Your task to perform on an android device: add a contact in the contacts app Image 0: 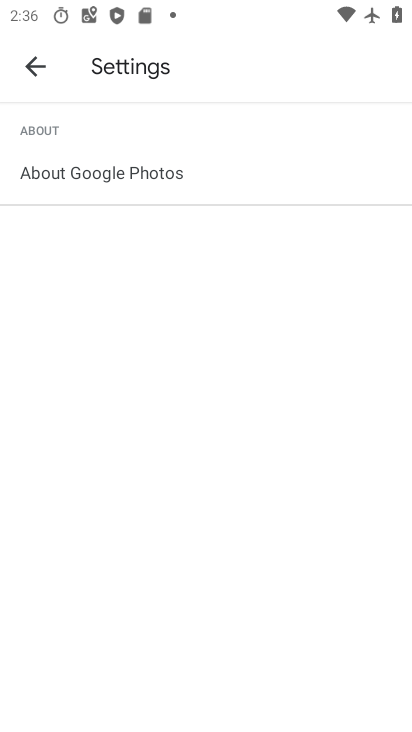
Step 0: drag from (191, 662) to (328, 222)
Your task to perform on an android device: add a contact in the contacts app Image 1: 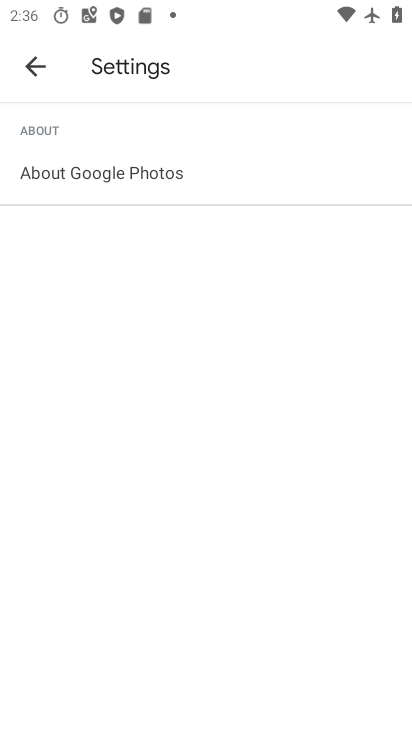
Step 1: press home button
Your task to perform on an android device: add a contact in the contacts app Image 2: 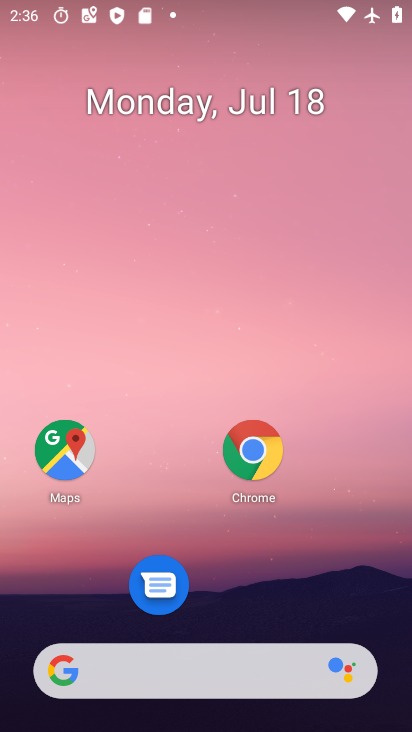
Step 2: drag from (174, 667) to (228, 234)
Your task to perform on an android device: add a contact in the contacts app Image 3: 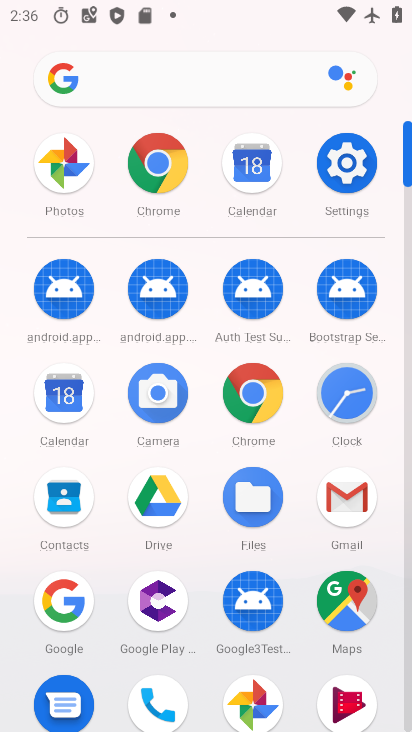
Step 3: click (70, 504)
Your task to perform on an android device: add a contact in the contacts app Image 4: 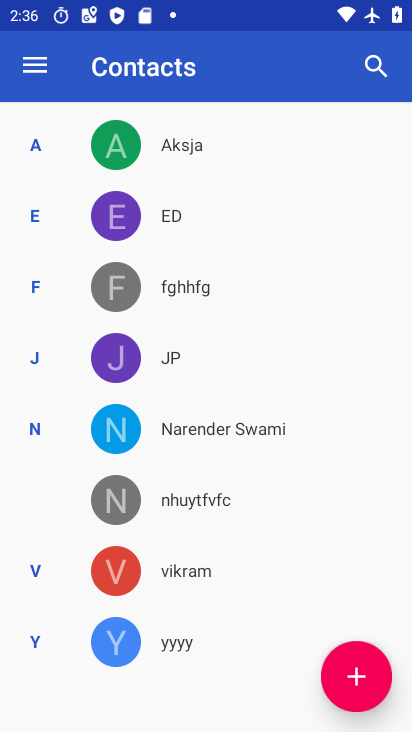
Step 4: click (358, 677)
Your task to perform on an android device: add a contact in the contacts app Image 5: 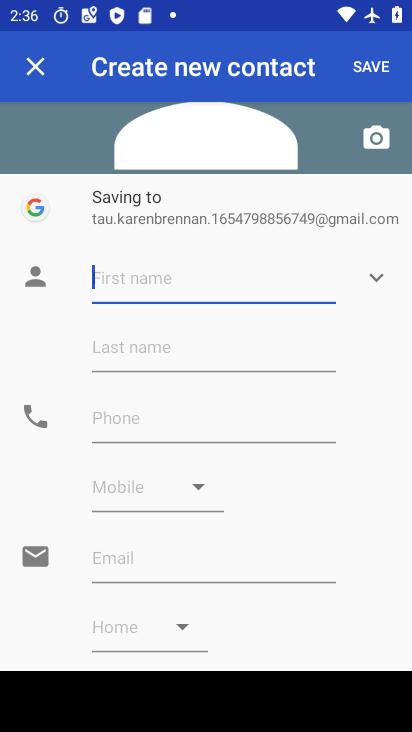
Step 5: type "erfgty"
Your task to perform on an android device: add a contact in the contacts app Image 6: 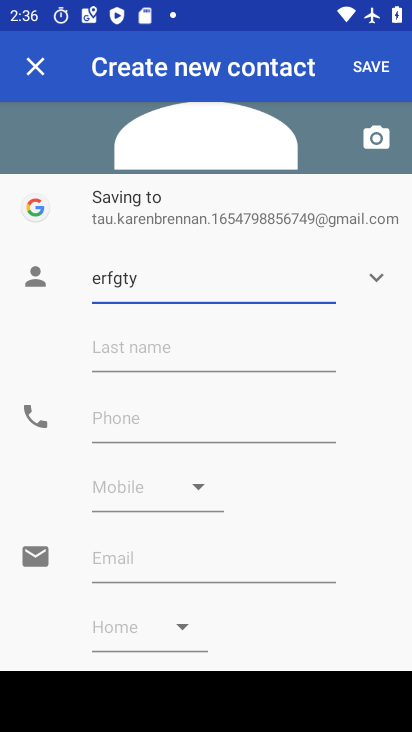
Step 6: click (150, 422)
Your task to perform on an android device: add a contact in the contacts app Image 7: 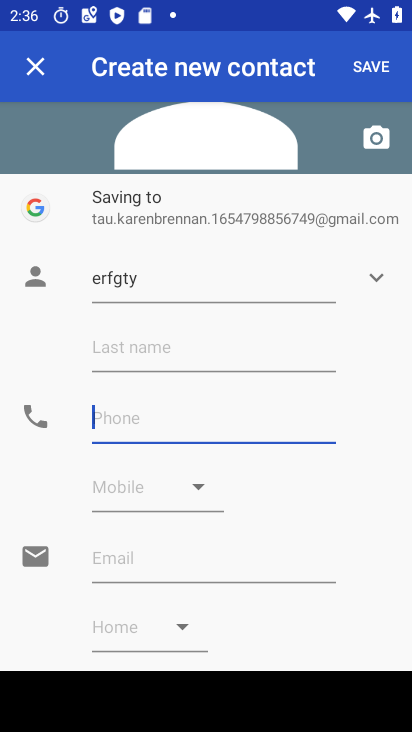
Step 7: type "487234"
Your task to perform on an android device: add a contact in the contacts app Image 8: 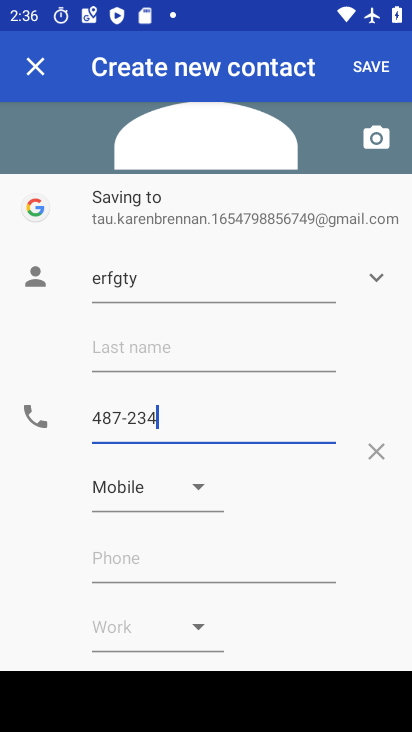
Step 8: click (381, 68)
Your task to perform on an android device: add a contact in the contacts app Image 9: 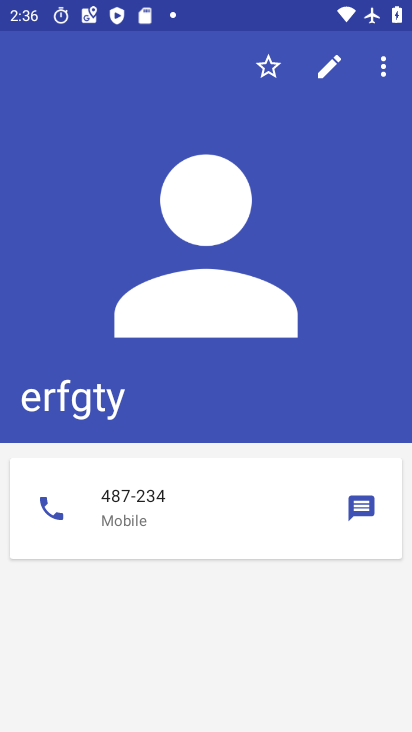
Step 9: task complete